Your task to perform on an android device: Go to privacy settings Image 0: 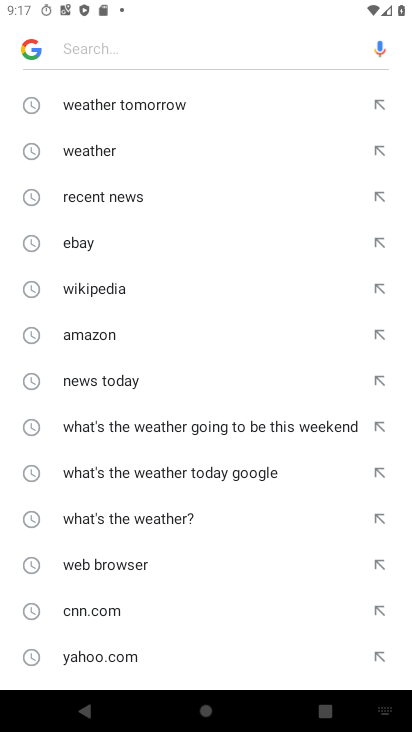
Step 0: press home button
Your task to perform on an android device: Go to privacy settings Image 1: 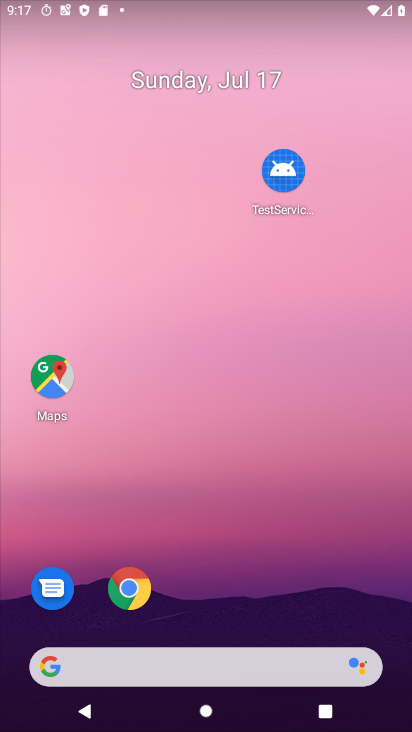
Step 1: drag from (219, 625) to (316, 141)
Your task to perform on an android device: Go to privacy settings Image 2: 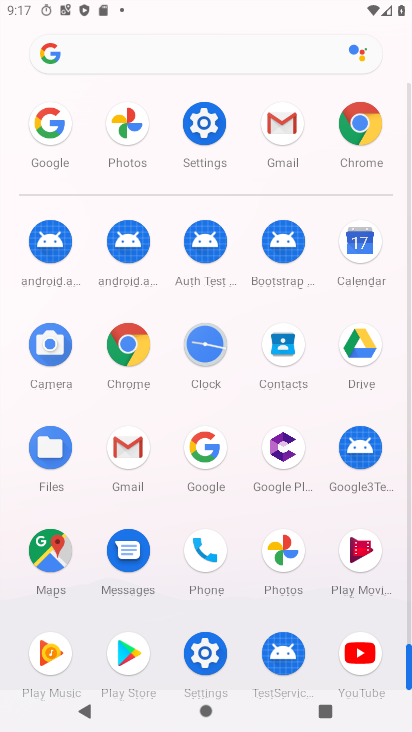
Step 2: click (210, 145)
Your task to perform on an android device: Go to privacy settings Image 3: 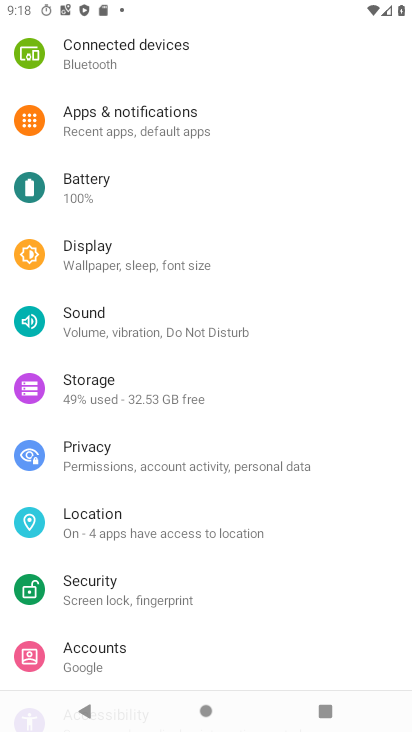
Step 3: click (163, 464)
Your task to perform on an android device: Go to privacy settings Image 4: 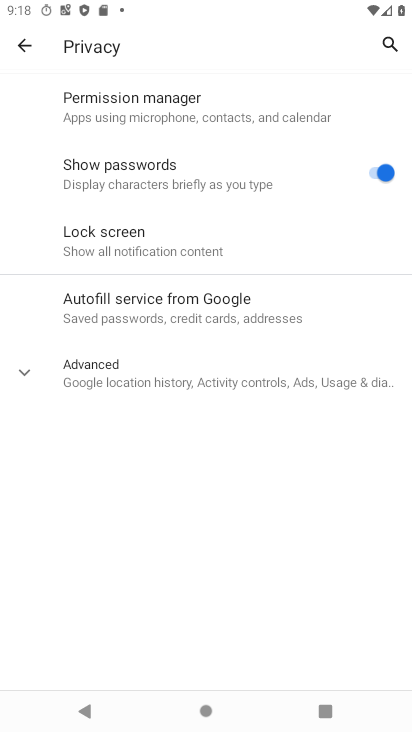
Step 4: click (211, 375)
Your task to perform on an android device: Go to privacy settings Image 5: 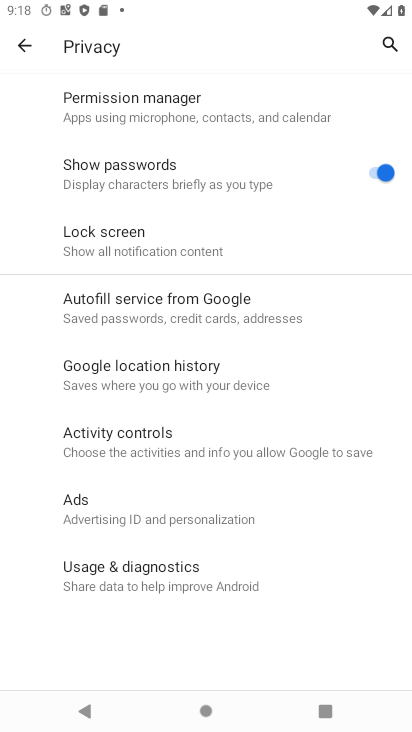
Step 5: task complete